Your task to perform on an android device: turn on showing notifications on the lock screen Image 0: 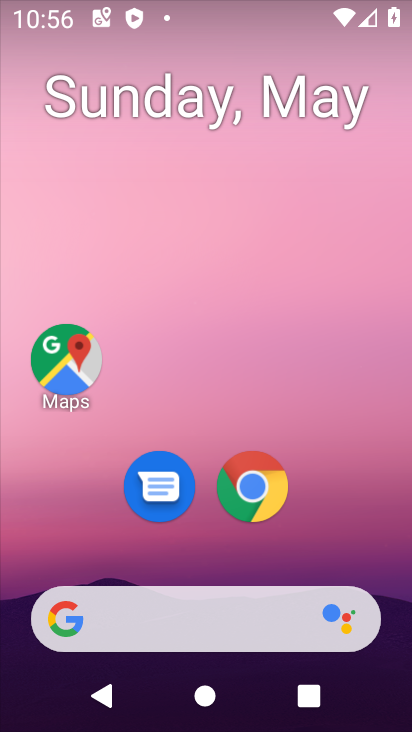
Step 0: drag from (307, 581) to (310, 252)
Your task to perform on an android device: turn on showing notifications on the lock screen Image 1: 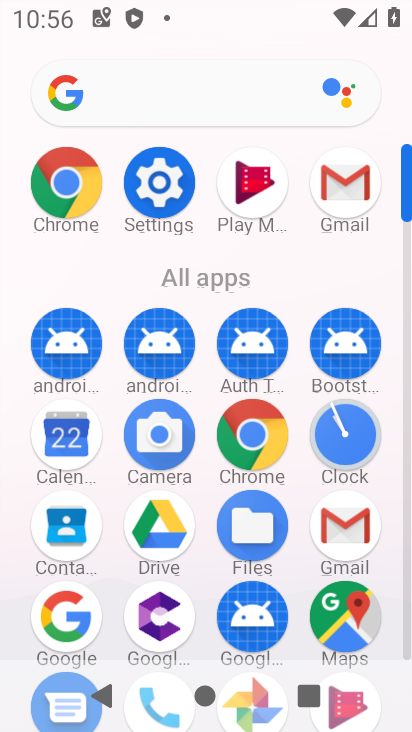
Step 1: drag from (233, 618) to (230, 312)
Your task to perform on an android device: turn on showing notifications on the lock screen Image 2: 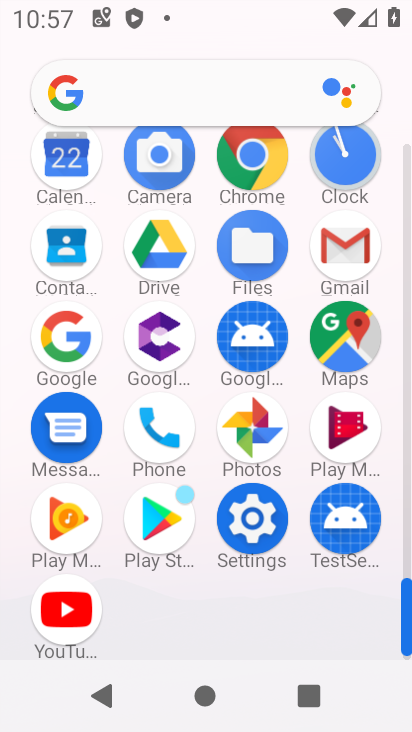
Step 2: click (251, 538)
Your task to perform on an android device: turn on showing notifications on the lock screen Image 3: 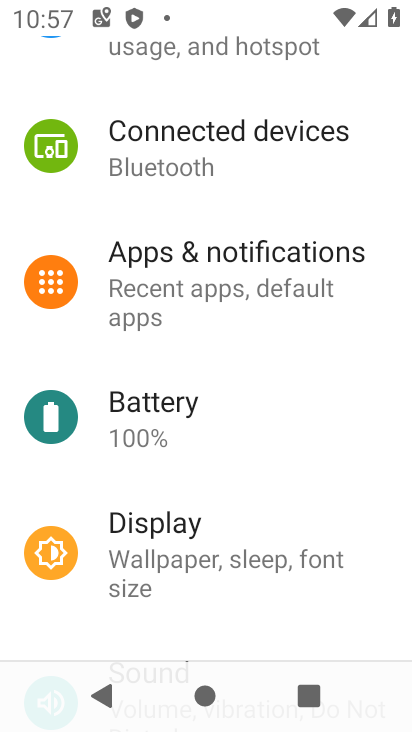
Step 3: click (226, 243)
Your task to perform on an android device: turn on showing notifications on the lock screen Image 4: 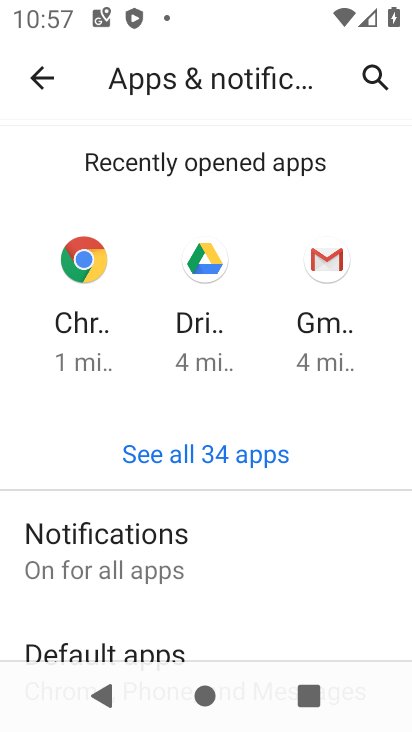
Step 4: click (151, 535)
Your task to perform on an android device: turn on showing notifications on the lock screen Image 5: 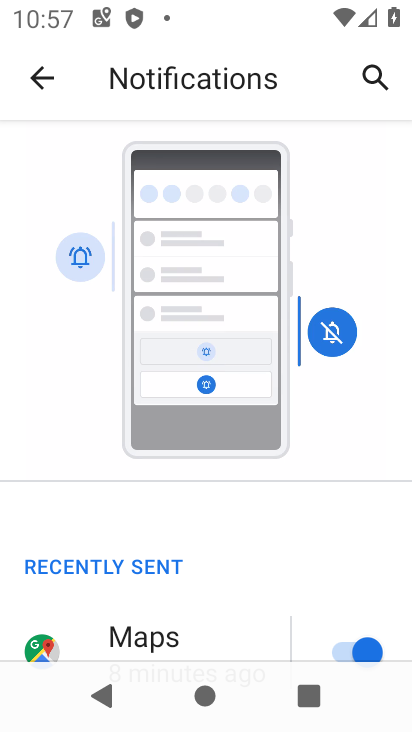
Step 5: drag from (180, 586) to (232, 237)
Your task to perform on an android device: turn on showing notifications on the lock screen Image 6: 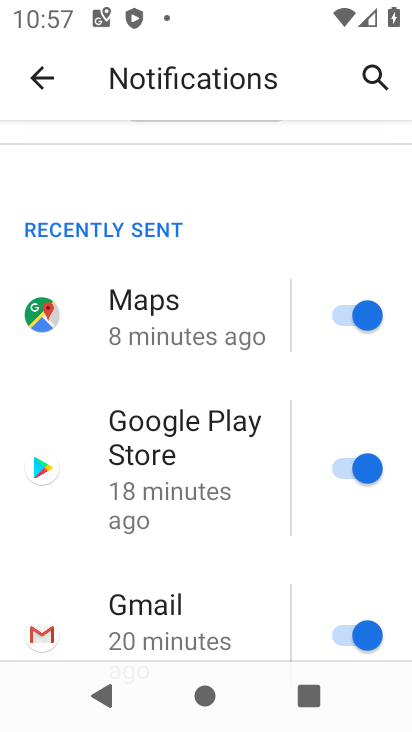
Step 6: drag from (212, 595) to (282, 244)
Your task to perform on an android device: turn on showing notifications on the lock screen Image 7: 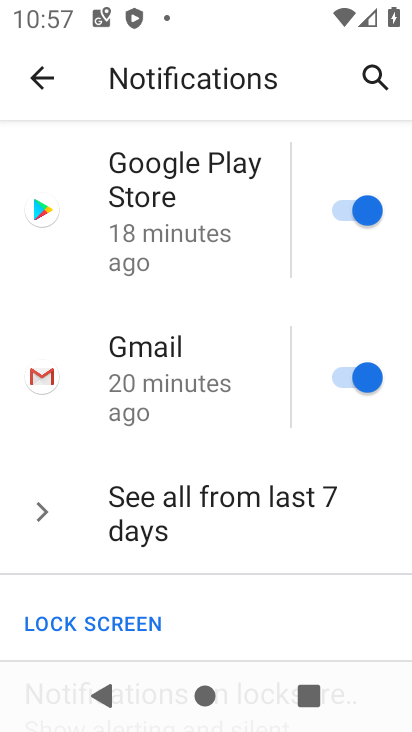
Step 7: drag from (160, 586) to (263, 236)
Your task to perform on an android device: turn on showing notifications on the lock screen Image 8: 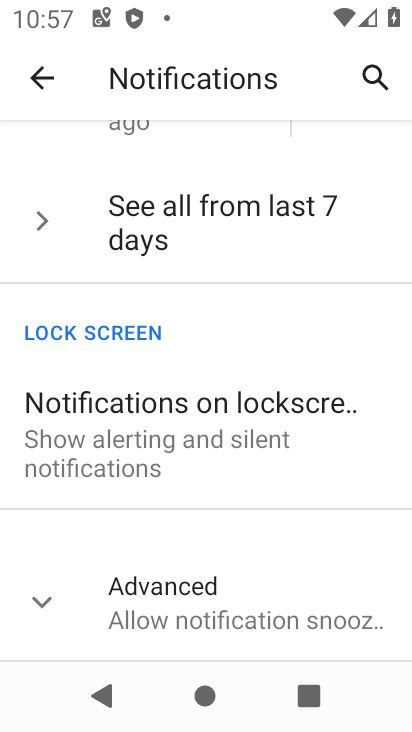
Step 8: click (182, 430)
Your task to perform on an android device: turn on showing notifications on the lock screen Image 9: 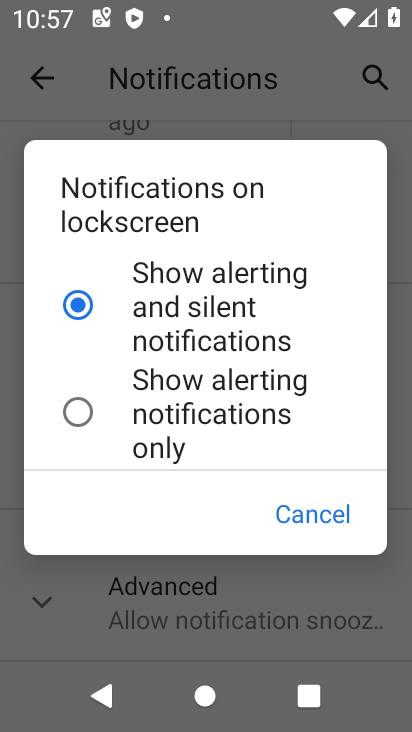
Step 9: task complete